Your task to perform on an android device: move a message to another label in the gmail app Image 0: 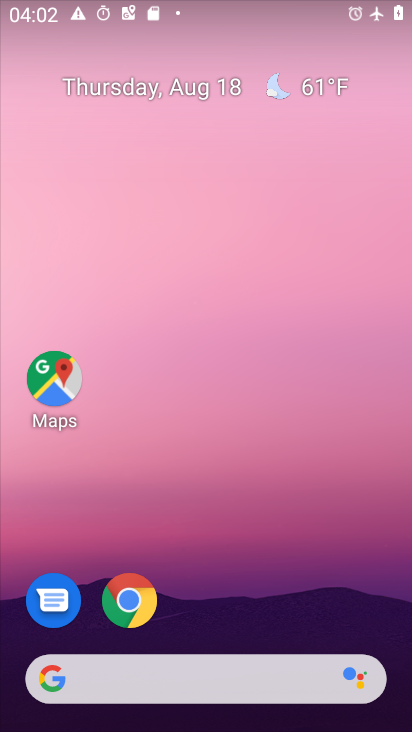
Step 0: press home button
Your task to perform on an android device: move a message to another label in the gmail app Image 1: 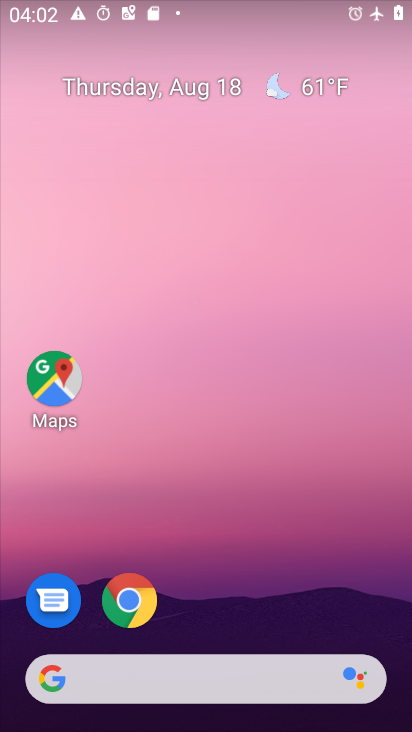
Step 1: drag from (226, 632) to (250, 142)
Your task to perform on an android device: move a message to another label in the gmail app Image 2: 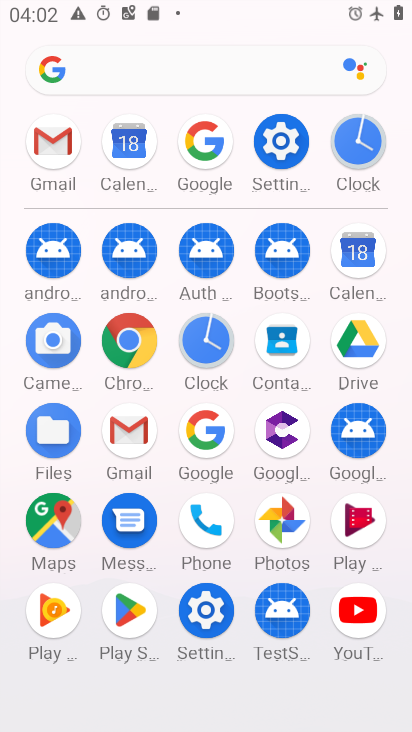
Step 2: click (50, 147)
Your task to perform on an android device: move a message to another label in the gmail app Image 3: 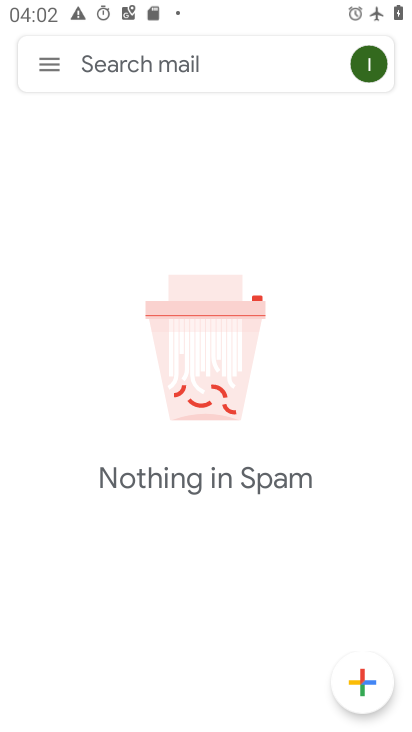
Step 3: click (53, 79)
Your task to perform on an android device: move a message to another label in the gmail app Image 4: 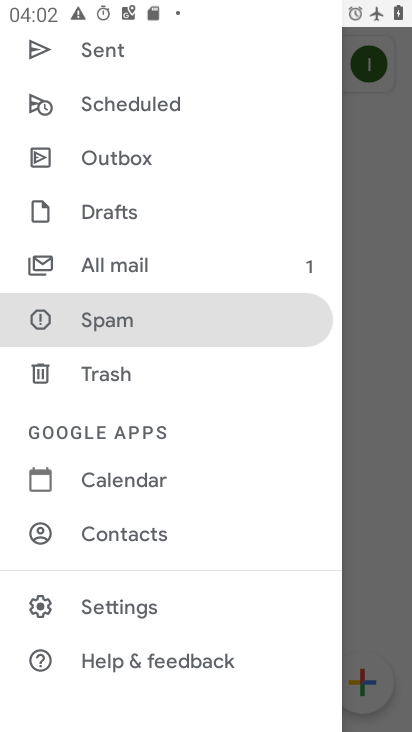
Step 4: click (111, 262)
Your task to perform on an android device: move a message to another label in the gmail app Image 5: 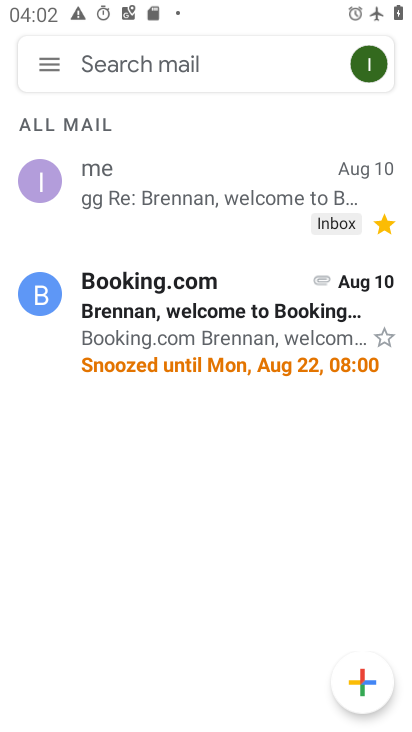
Step 5: click (171, 317)
Your task to perform on an android device: move a message to another label in the gmail app Image 6: 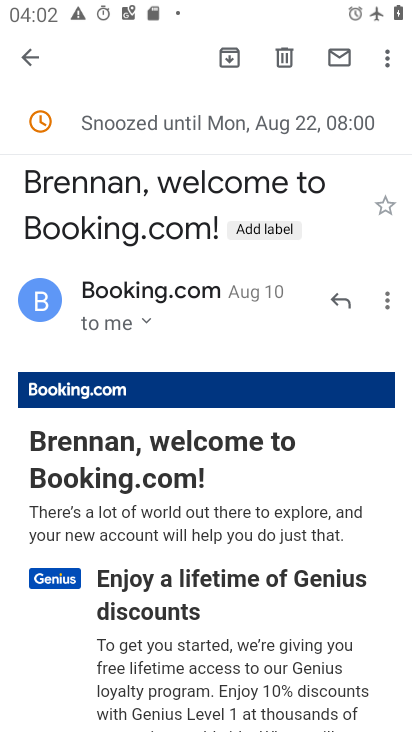
Step 6: click (390, 47)
Your task to perform on an android device: move a message to another label in the gmail app Image 7: 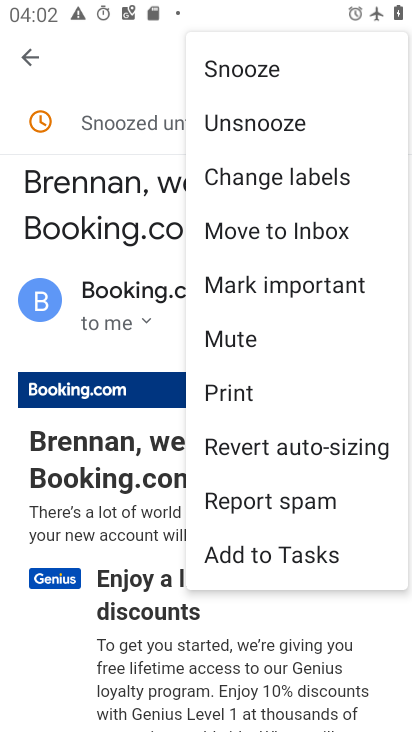
Step 7: click (289, 171)
Your task to perform on an android device: move a message to another label in the gmail app Image 8: 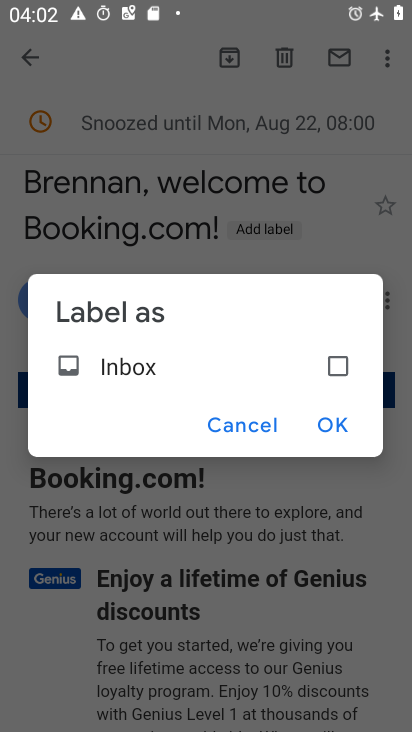
Step 8: click (340, 368)
Your task to perform on an android device: move a message to another label in the gmail app Image 9: 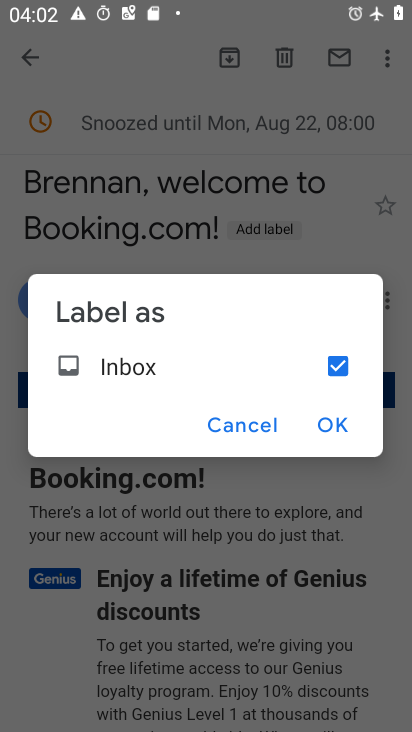
Step 9: click (338, 421)
Your task to perform on an android device: move a message to another label in the gmail app Image 10: 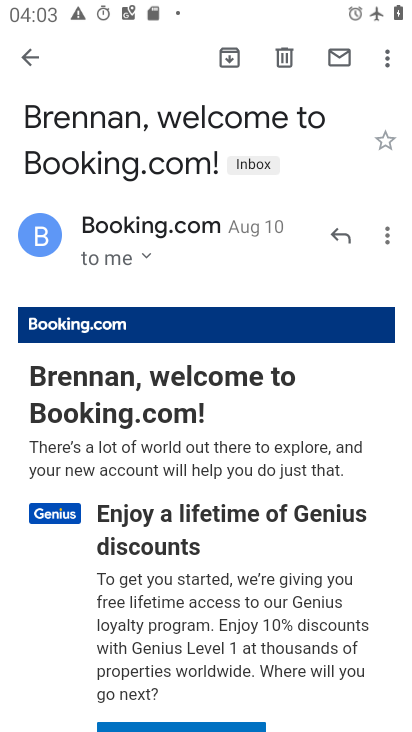
Step 10: task complete